Your task to perform on an android device: change the upload size in google photos Image 0: 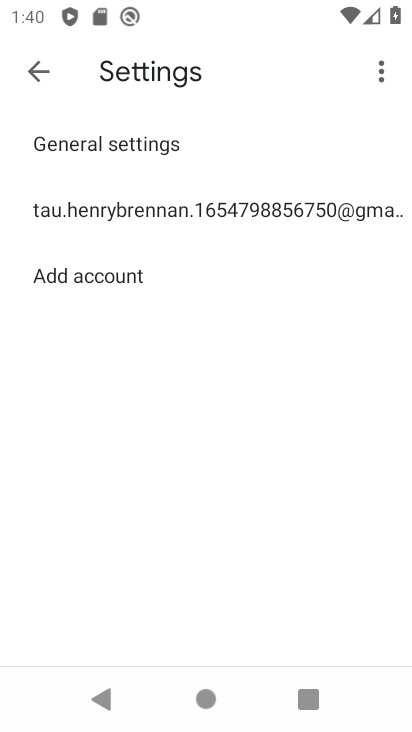
Step 0: press back button
Your task to perform on an android device: change the upload size in google photos Image 1: 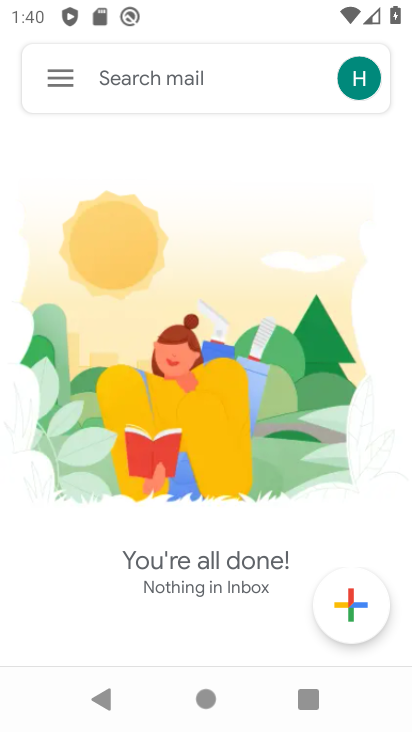
Step 1: press back button
Your task to perform on an android device: change the upload size in google photos Image 2: 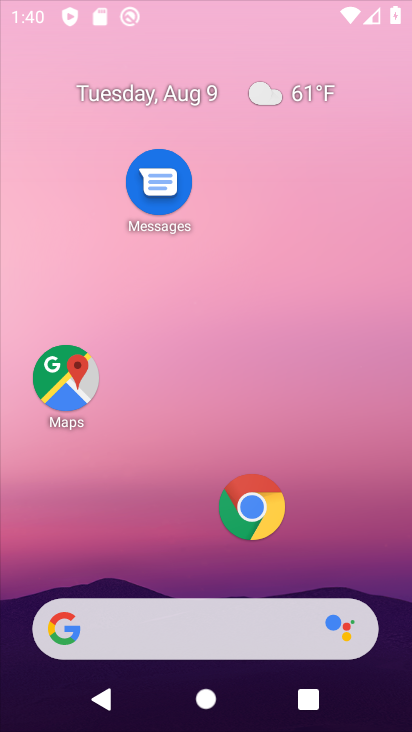
Step 2: press back button
Your task to perform on an android device: change the upload size in google photos Image 3: 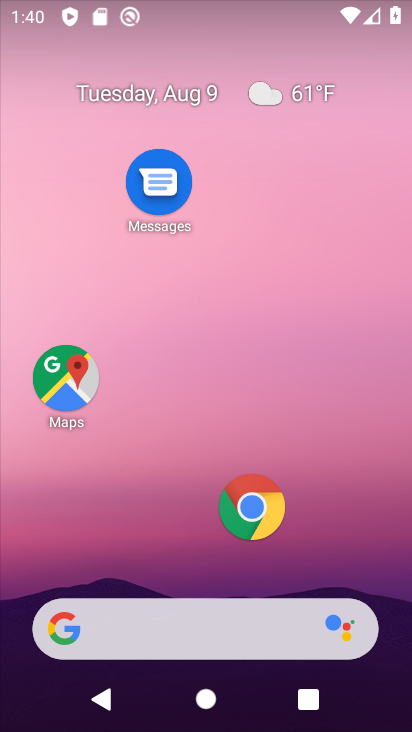
Step 3: drag from (118, 492) to (265, 86)
Your task to perform on an android device: change the upload size in google photos Image 4: 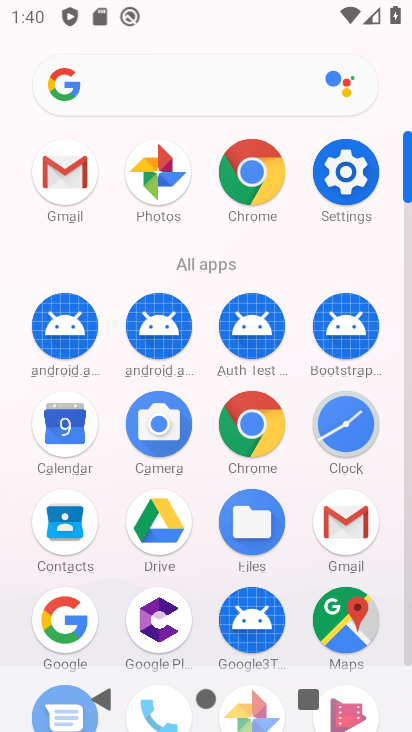
Step 4: click (165, 162)
Your task to perform on an android device: change the upload size in google photos Image 5: 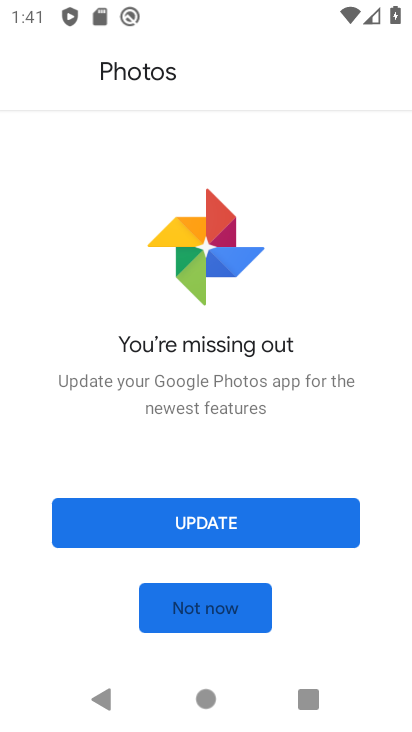
Step 5: click (229, 610)
Your task to perform on an android device: change the upload size in google photos Image 6: 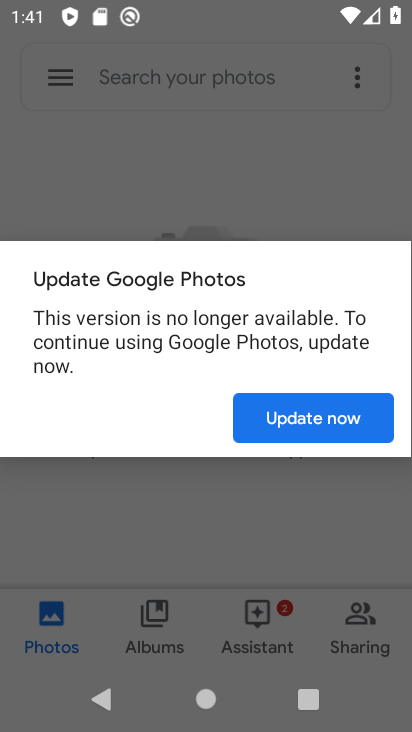
Step 6: click (314, 417)
Your task to perform on an android device: change the upload size in google photos Image 7: 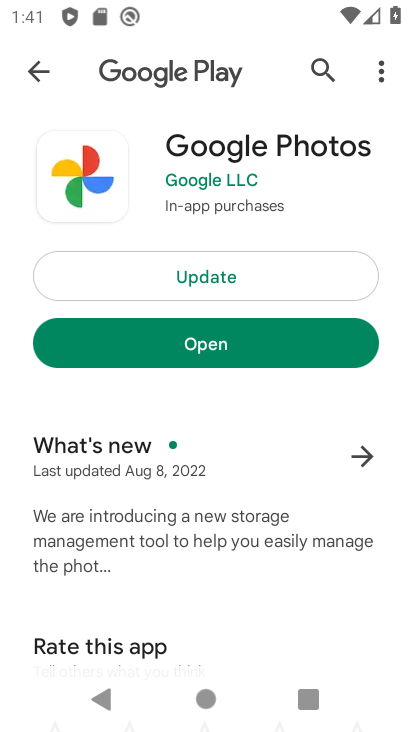
Step 7: click (165, 337)
Your task to perform on an android device: change the upload size in google photos Image 8: 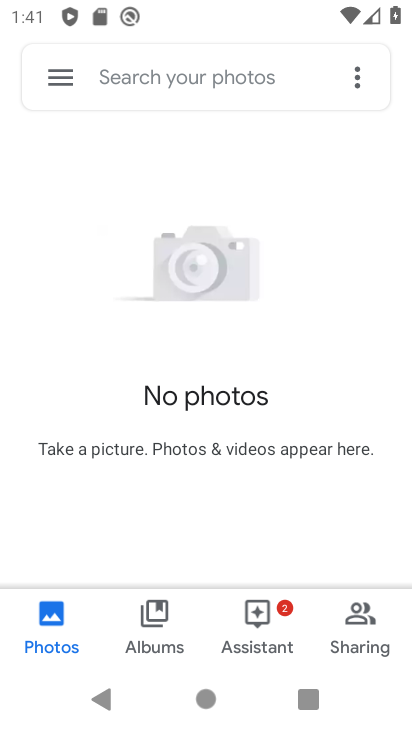
Step 8: click (69, 83)
Your task to perform on an android device: change the upload size in google photos Image 9: 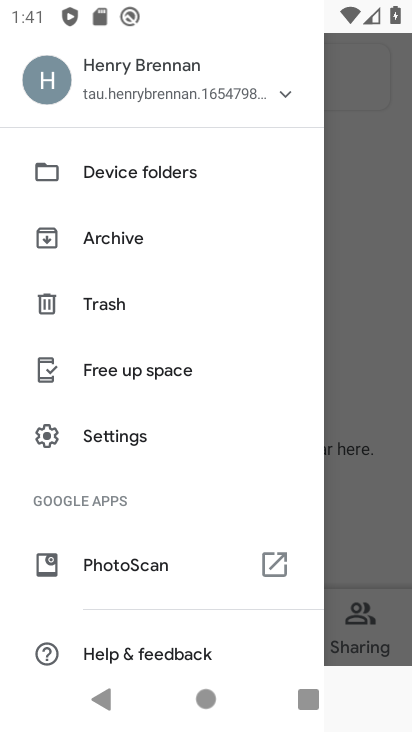
Step 9: click (126, 437)
Your task to perform on an android device: change the upload size in google photos Image 10: 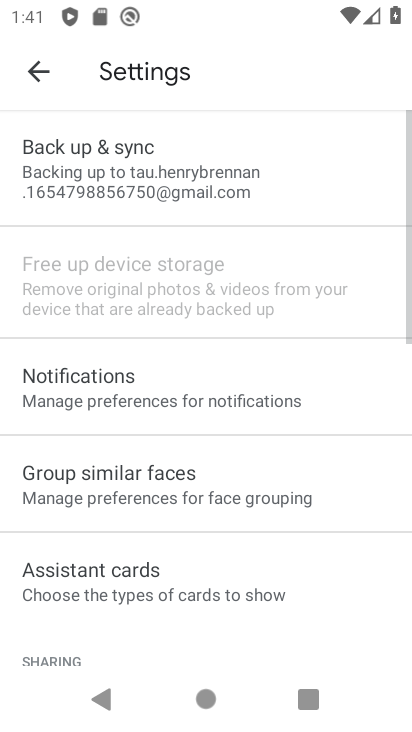
Step 10: click (59, 163)
Your task to perform on an android device: change the upload size in google photos Image 11: 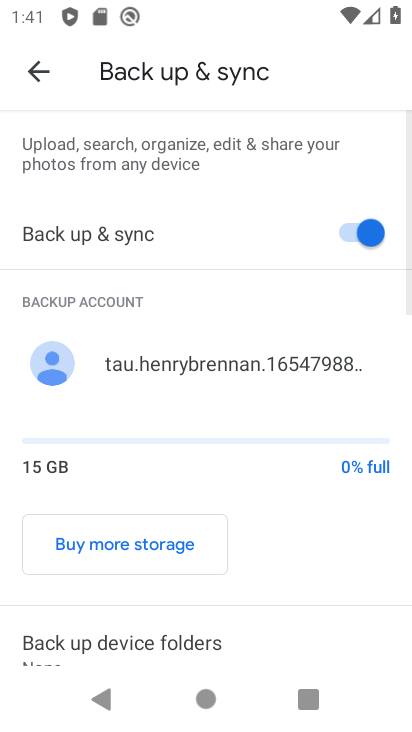
Step 11: drag from (186, 627) to (290, 281)
Your task to perform on an android device: change the upload size in google photos Image 12: 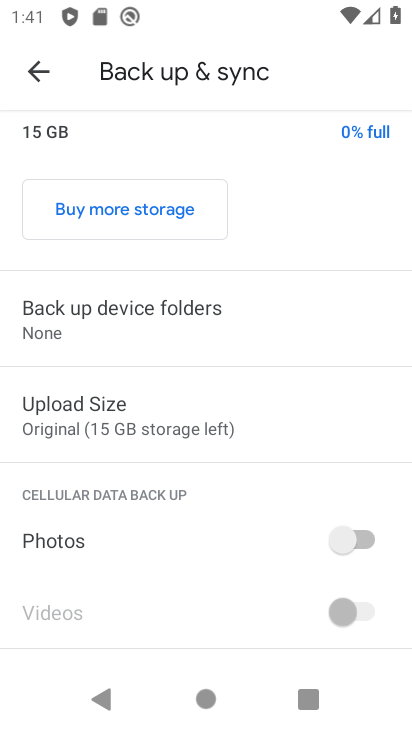
Step 12: click (189, 433)
Your task to perform on an android device: change the upload size in google photos Image 13: 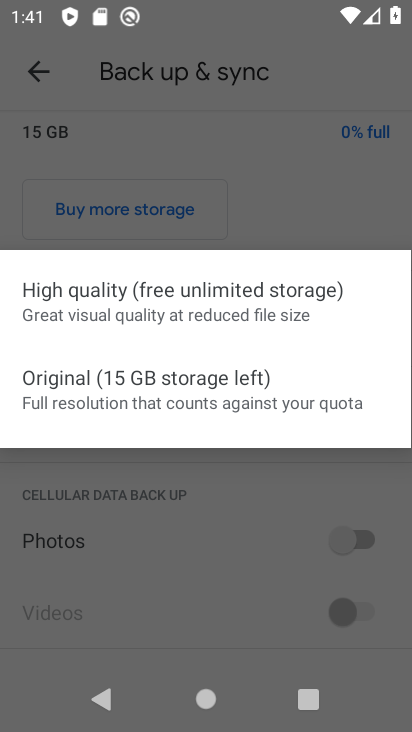
Step 13: click (108, 312)
Your task to perform on an android device: change the upload size in google photos Image 14: 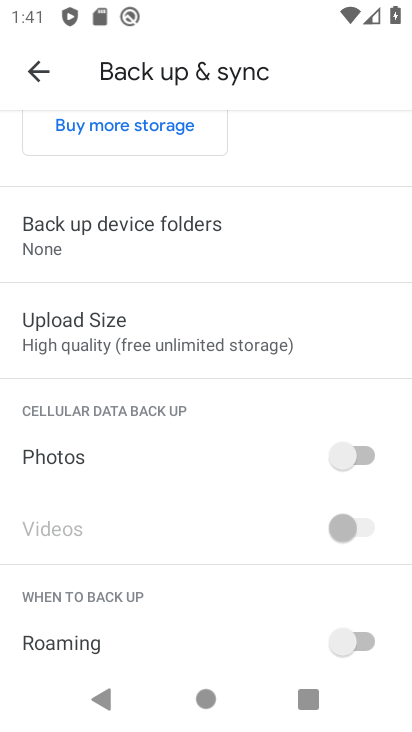
Step 14: task complete